Your task to perform on an android device: Open Yahoo.com Image 0: 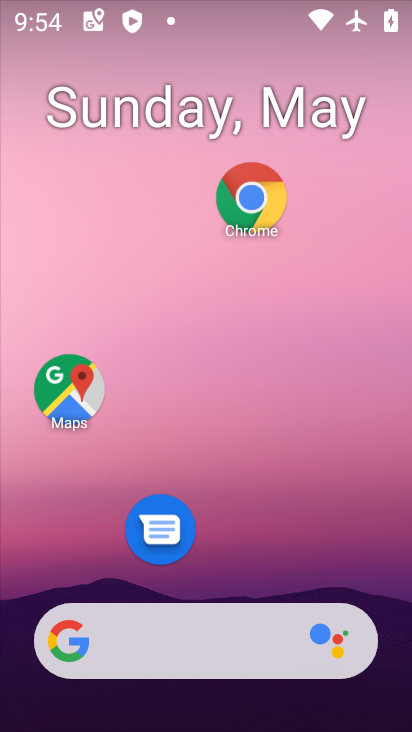
Step 0: click (246, 200)
Your task to perform on an android device: Open Yahoo.com Image 1: 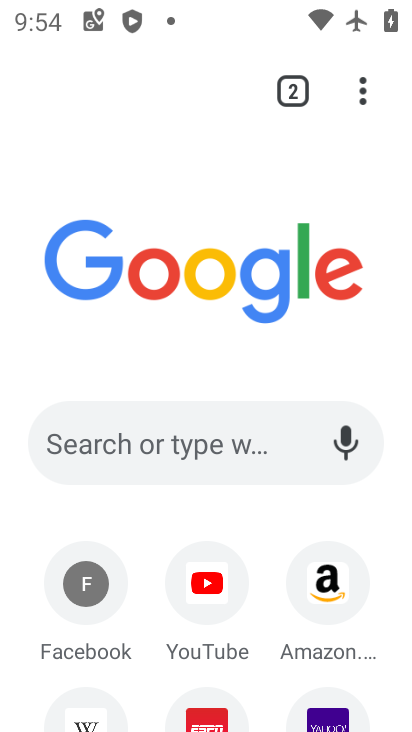
Step 1: click (341, 702)
Your task to perform on an android device: Open Yahoo.com Image 2: 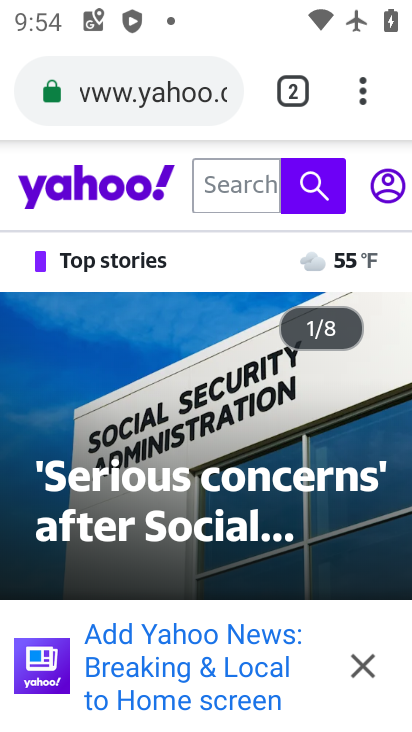
Step 2: task complete